Your task to perform on an android device: delete the emails in spam in the gmail app Image 0: 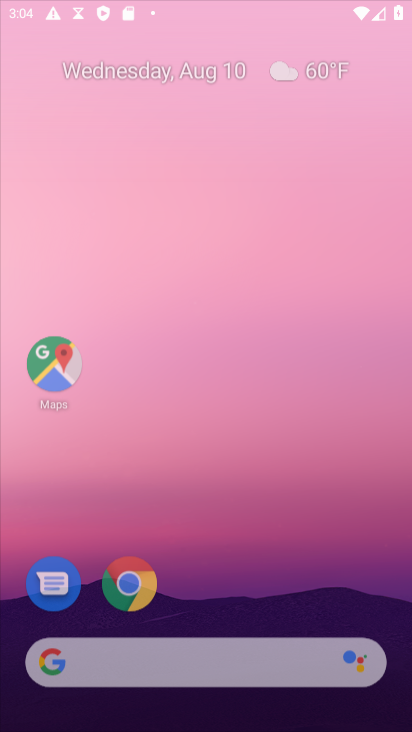
Step 0: press home button
Your task to perform on an android device: delete the emails in spam in the gmail app Image 1: 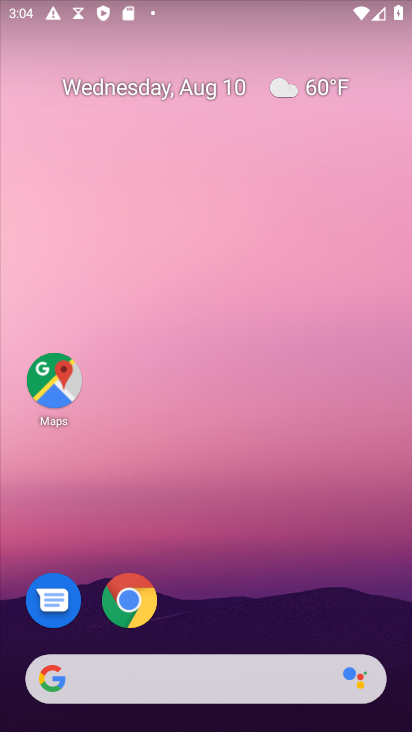
Step 1: drag from (219, 629) to (297, 4)
Your task to perform on an android device: delete the emails in spam in the gmail app Image 2: 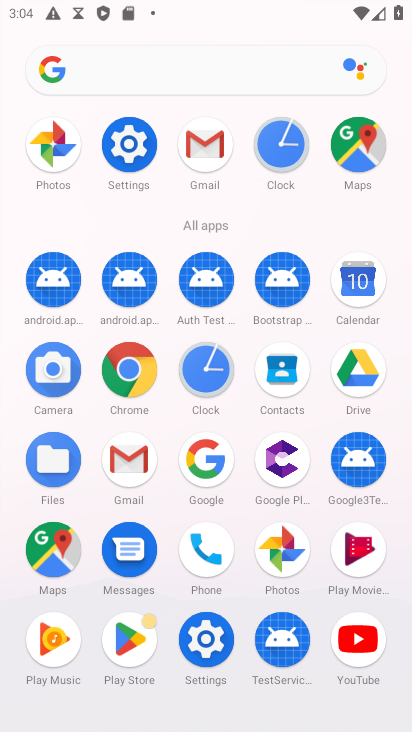
Step 2: drag from (232, 617) to (203, 152)
Your task to perform on an android device: delete the emails in spam in the gmail app Image 3: 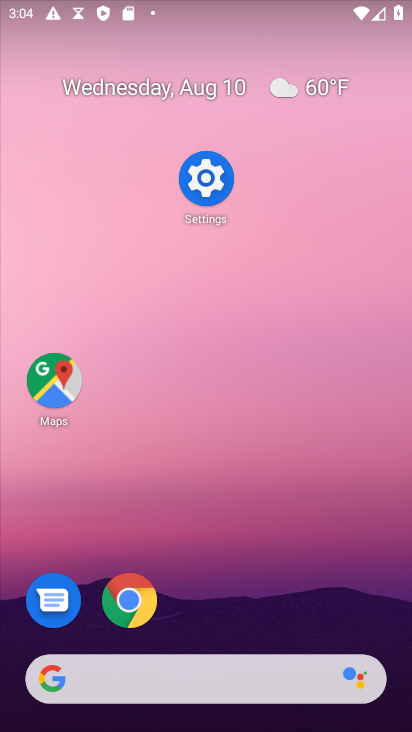
Step 3: drag from (295, 621) to (279, 18)
Your task to perform on an android device: delete the emails in spam in the gmail app Image 4: 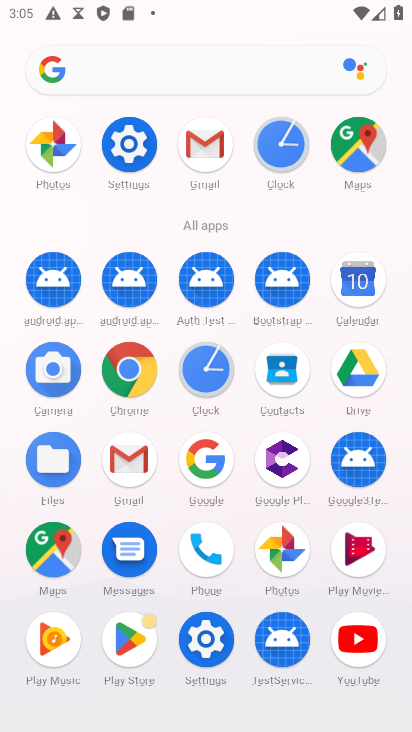
Step 4: click (200, 144)
Your task to perform on an android device: delete the emails in spam in the gmail app Image 5: 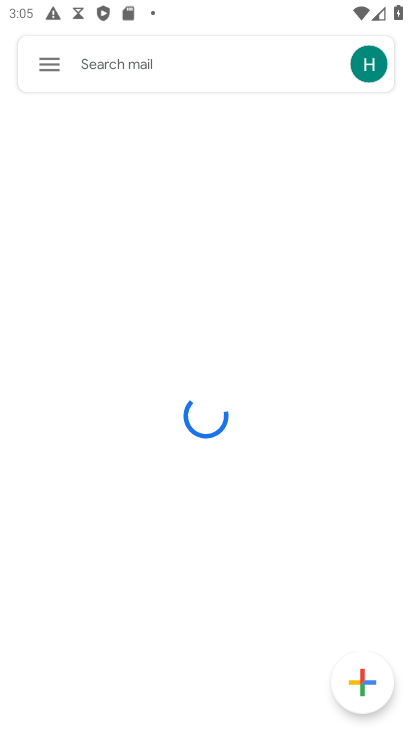
Step 5: click (54, 66)
Your task to perform on an android device: delete the emails in spam in the gmail app Image 6: 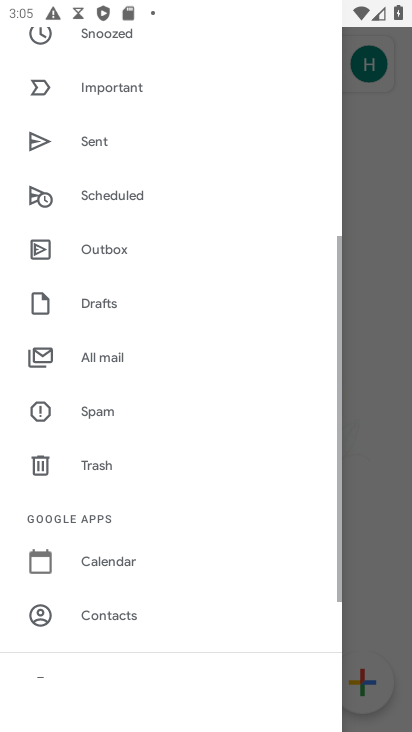
Step 6: click (93, 412)
Your task to perform on an android device: delete the emails in spam in the gmail app Image 7: 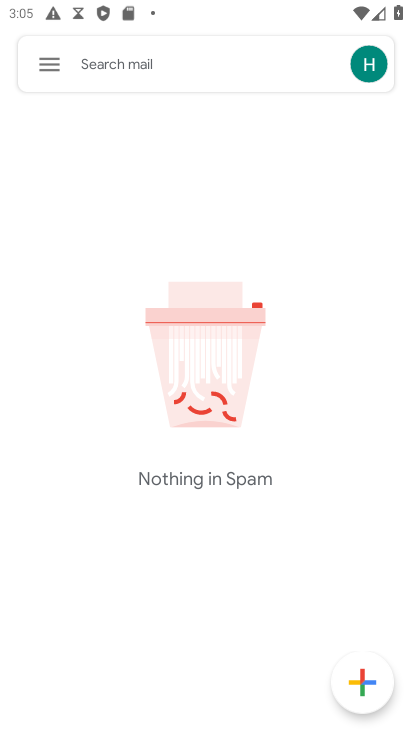
Step 7: task complete